Your task to perform on an android device: Open Chrome and go to settings Image 0: 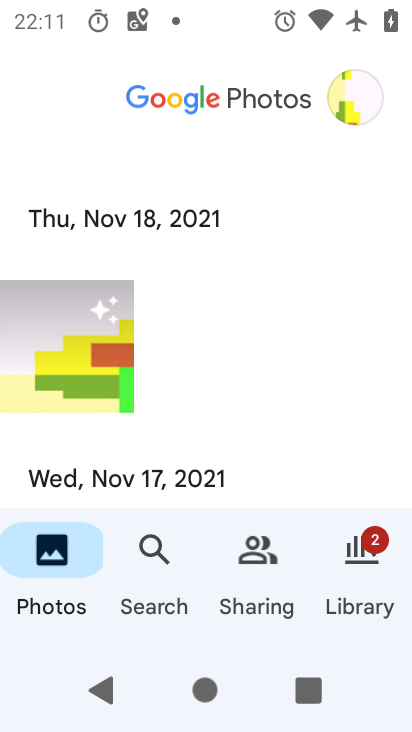
Step 0: press home button
Your task to perform on an android device: Open Chrome and go to settings Image 1: 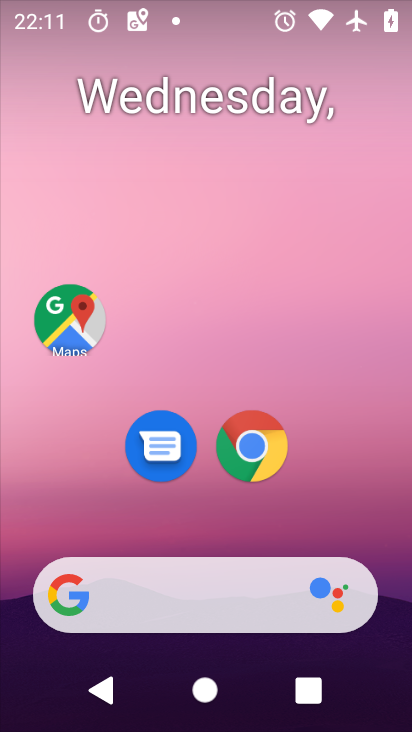
Step 1: click (243, 453)
Your task to perform on an android device: Open Chrome and go to settings Image 2: 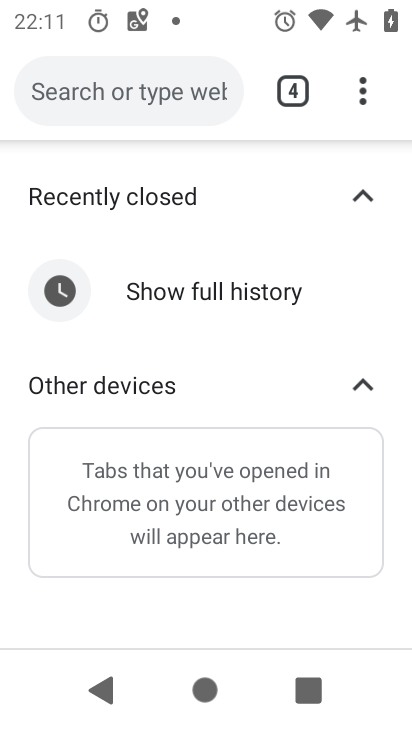
Step 2: task complete